Your task to perform on an android device: change the upload size in google photos Image 0: 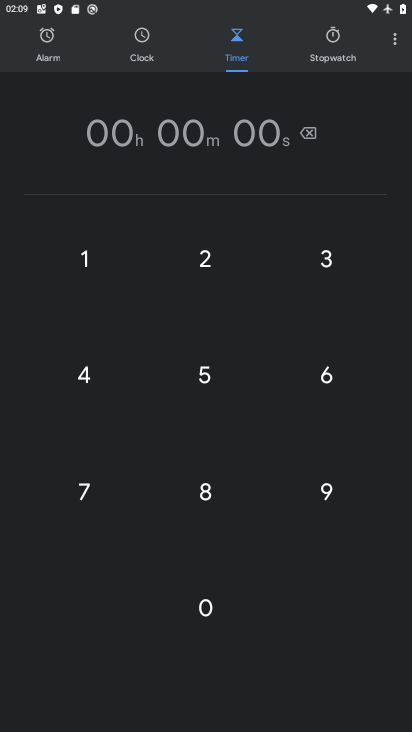
Step 0: press home button
Your task to perform on an android device: change the upload size in google photos Image 1: 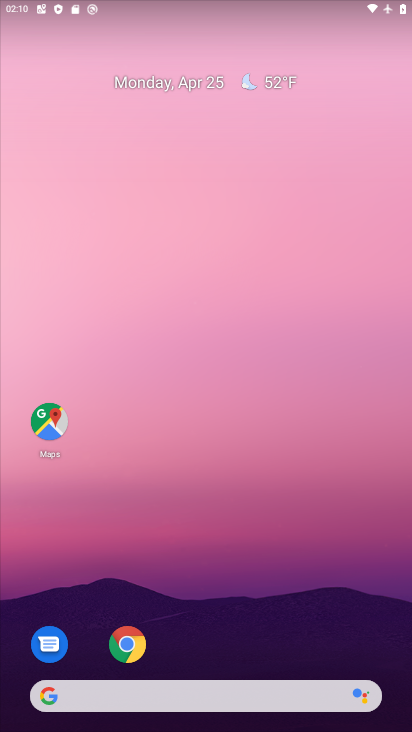
Step 1: drag from (253, 633) to (237, 3)
Your task to perform on an android device: change the upload size in google photos Image 2: 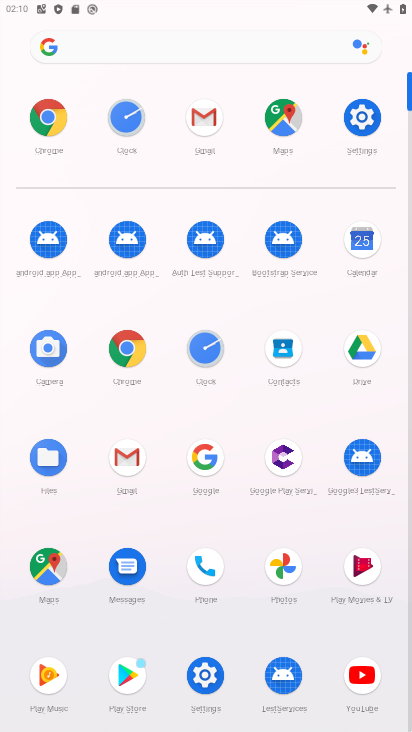
Step 2: click (271, 562)
Your task to perform on an android device: change the upload size in google photos Image 3: 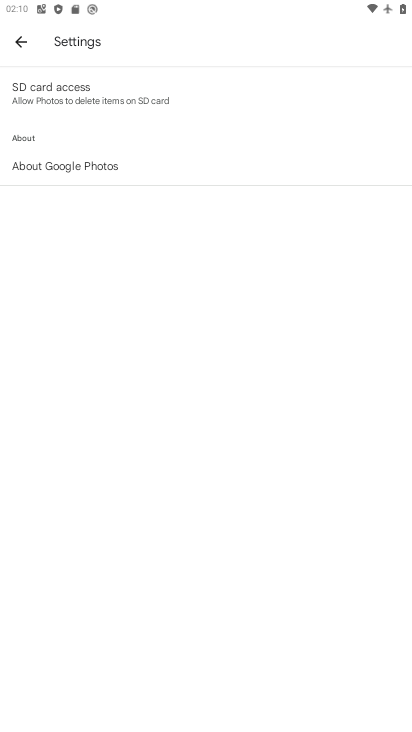
Step 3: click (21, 44)
Your task to perform on an android device: change the upload size in google photos Image 4: 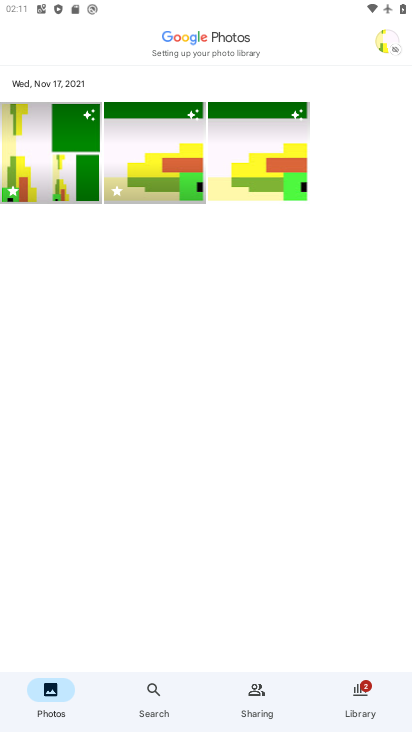
Step 4: task complete